Your task to perform on an android device: turn off notifications settings in the gmail app Image 0: 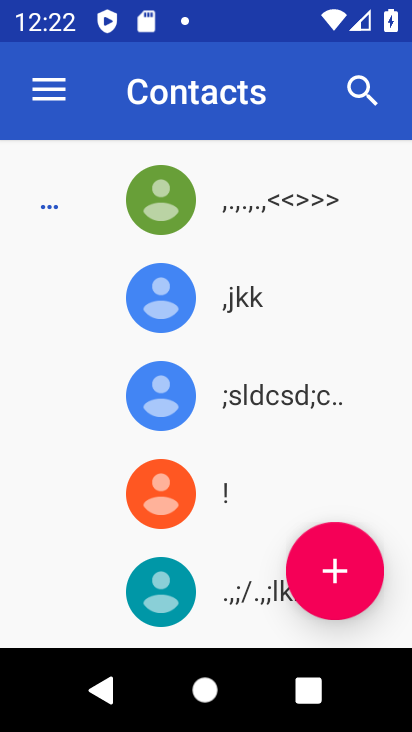
Step 0: press home button
Your task to perform on an android device: turn off notifications settings in the gmail app Image 1: 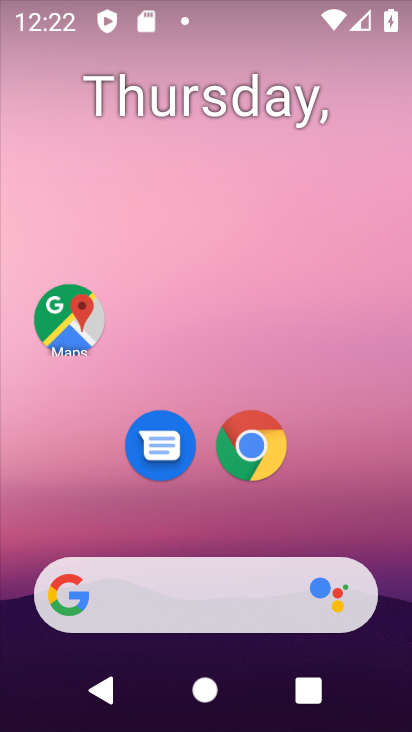
Step 1: drag from (379, 534) to (356, 159)
Your task to perform on an android device: turn off notifications settings in the gmail app Image 2: 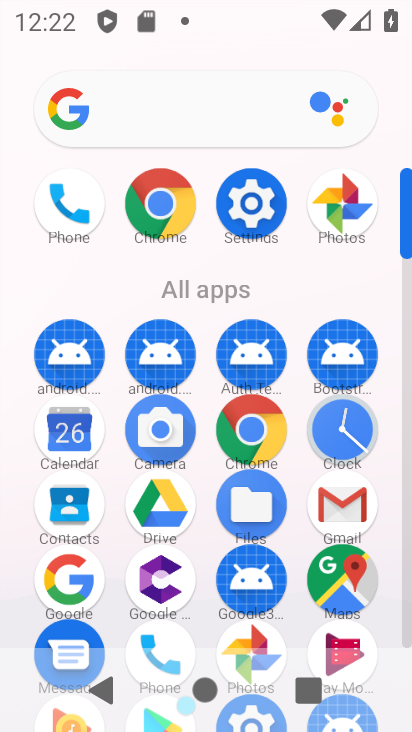
Step 2: click (367, 508)
Your task to perform on an android device: turn off notifications settings in the gmail app Image 3: 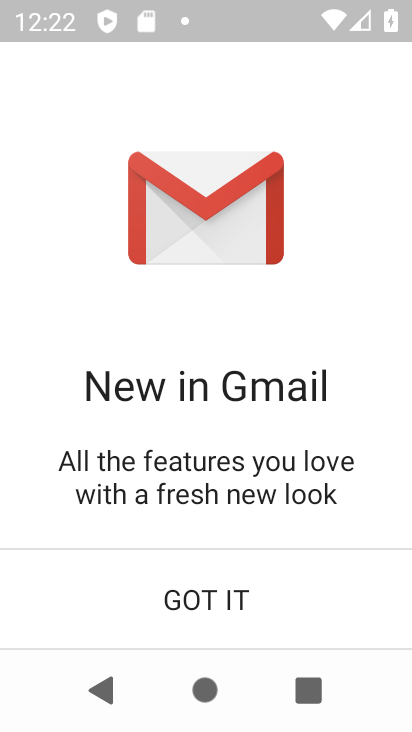
Step 3: click (233, 589)
Your task to perform on an android device: turn off notifications settings in the gmail app Image 4: 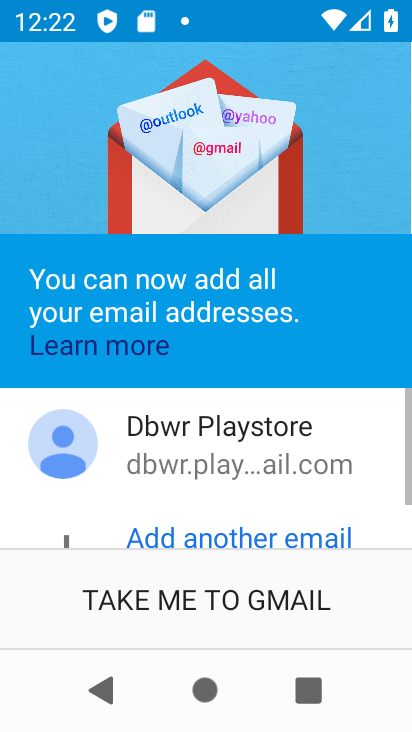
Step 4: click (234, 597)
Your task to perform on an android device: turn off notifications settings in the gmail app Image 5: 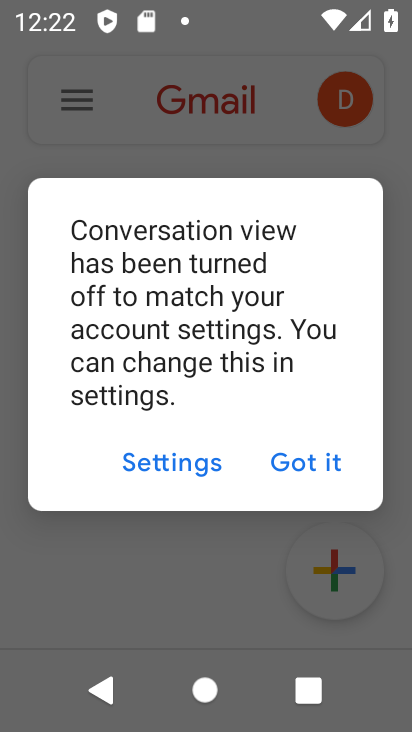
Step 5: click (317, 473)
Your task to perform on an android device: turn off notifications settings in the gmail app Image 6: 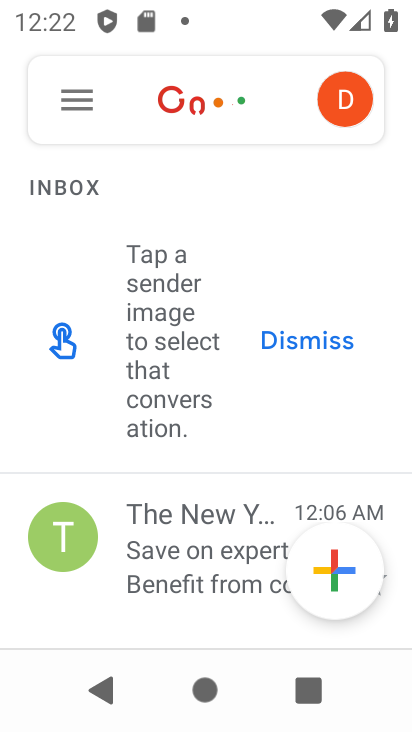
Step 6: click (66, 103)
Your task to perform on an android device: turn off notifications settings in the gmail app Image 7: 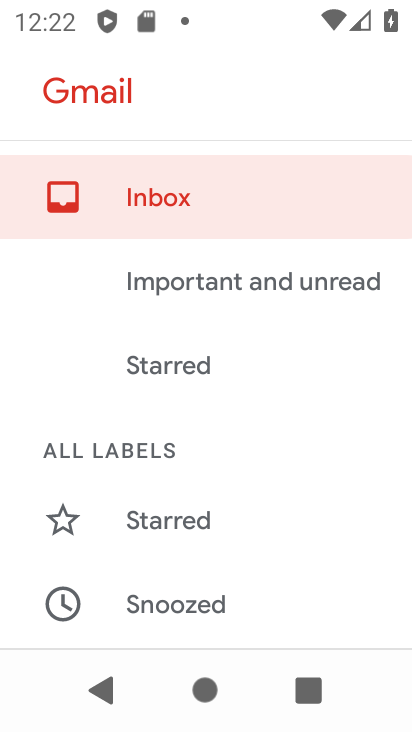
Step 7: drag from (231, 595) to (318, 203)
Your task to perform on an android device: turn off notifications settings in the gmail app Image 8: 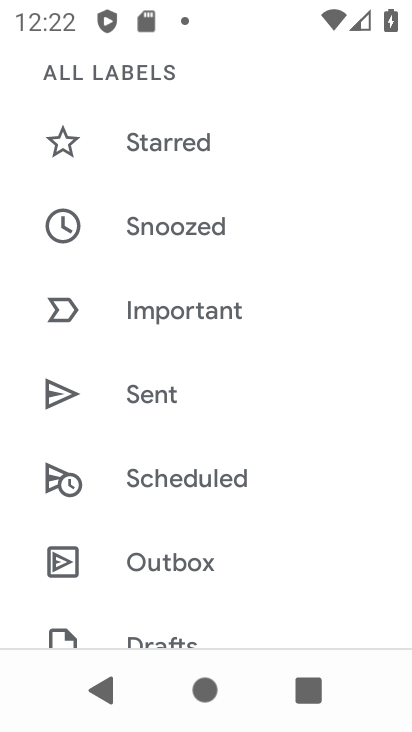
Step 8: drag from (291, 593) to (306, 144)
Your task to perform on an android device: turn off notifications settings in the gmail app Image 9: 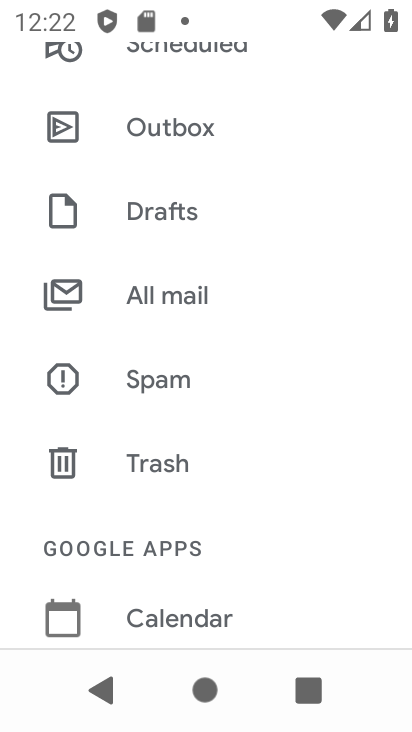
Step 9: drag from (273, 501) to (327, 181)
Your task to perform on an android device: turn off notifications settings in the gmail app Image 10: 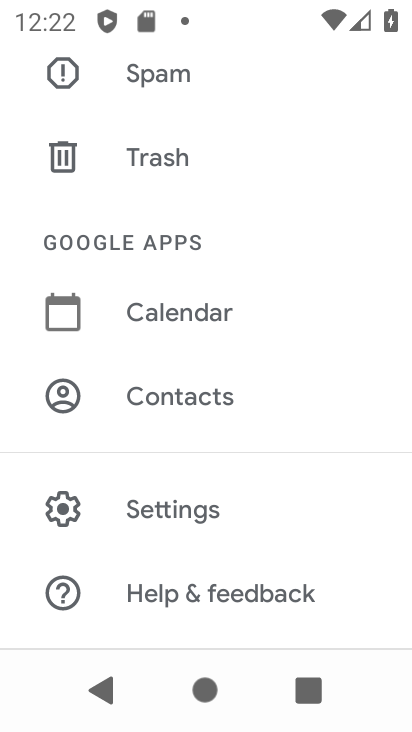
Step 10: click (219, 497)
Your task to perform on an android device: turn off notifications settings in the gmail app Image 11: 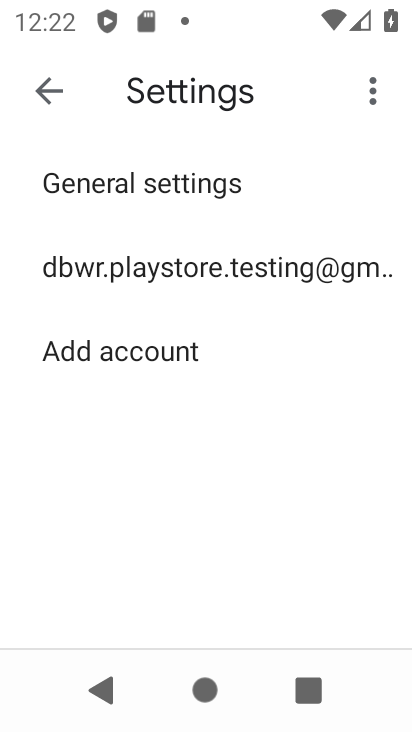
Step 11: click (252, 249)
Your task to perform on an android device: turn off notifications settings in the gmail app Image 12: 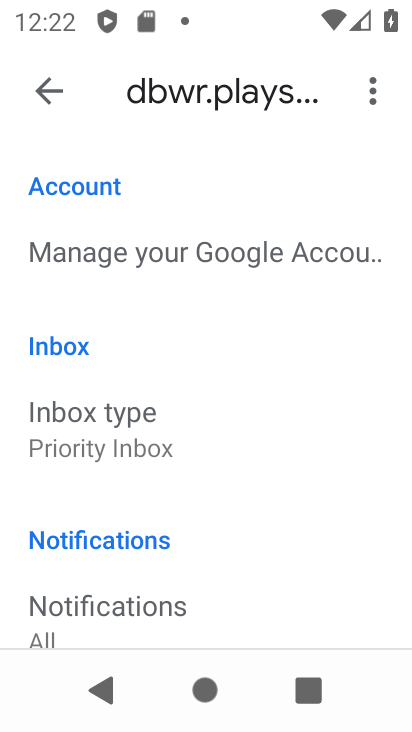
Step 12: drag from (251, 629) to (299, 203)
Your task to perform on an android device: turn off notifications settings in the gmail app Image 13: 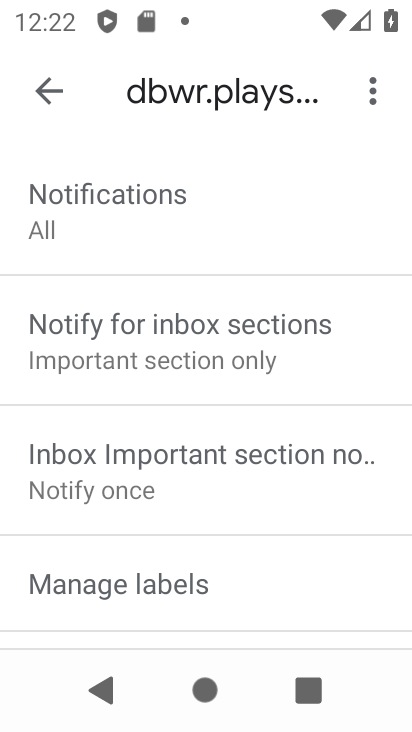
Step 13: click (156, 218)
Your task to perform on an android device: turn off notifications settings in the gmail app Image 14: 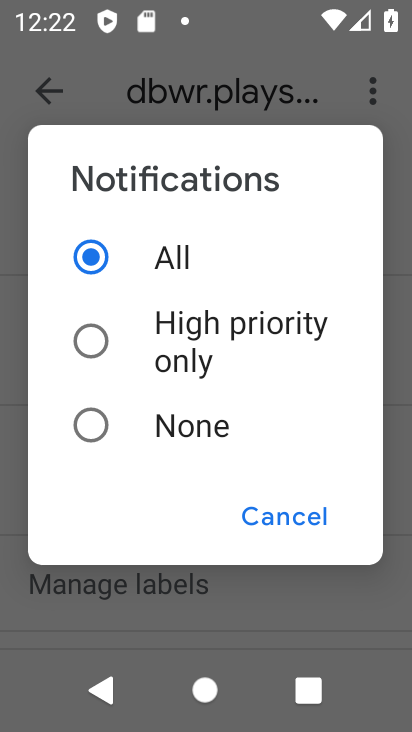
Step 14: click (93, 425)
Your task to perform on an android device: turn off notifications settings in the gmail app Image 15: 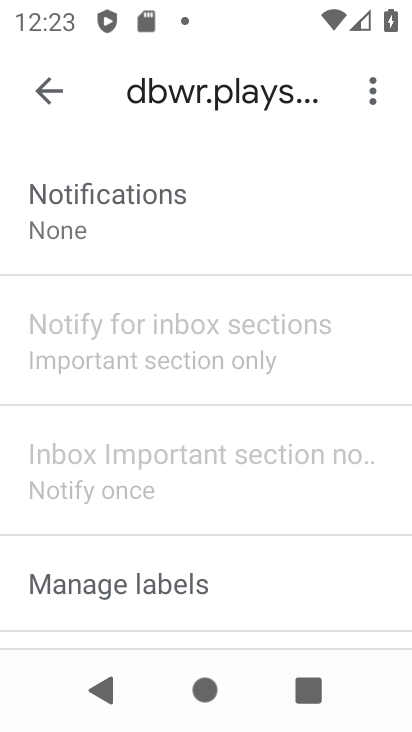
Step 15: task complete